Your task to perform on an android device: When is my next meeting? Image 0: 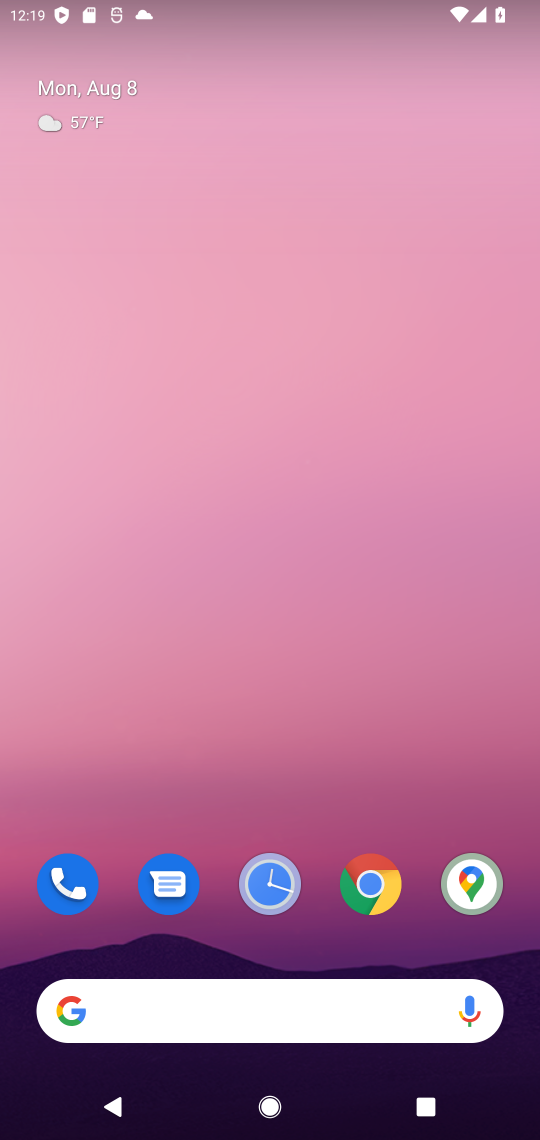
Step 0: drag from (231, 903) to (387, 424)
Your task to perform on an android device: When is my next meeting? Image 1: 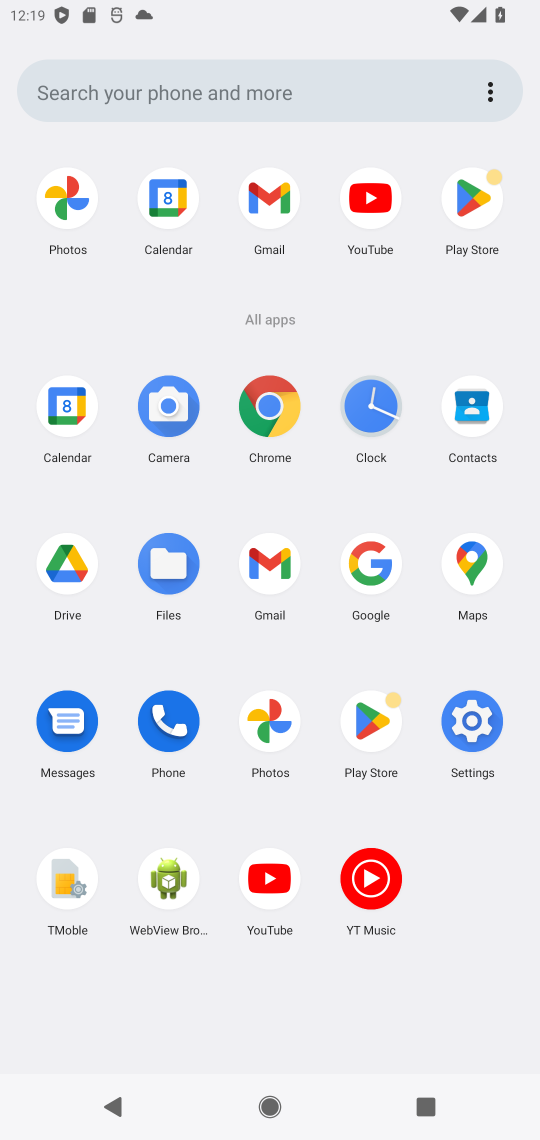
Step 1: click (93, 441)
Your task to perform on an android device: When is my next meeting? Image 2: 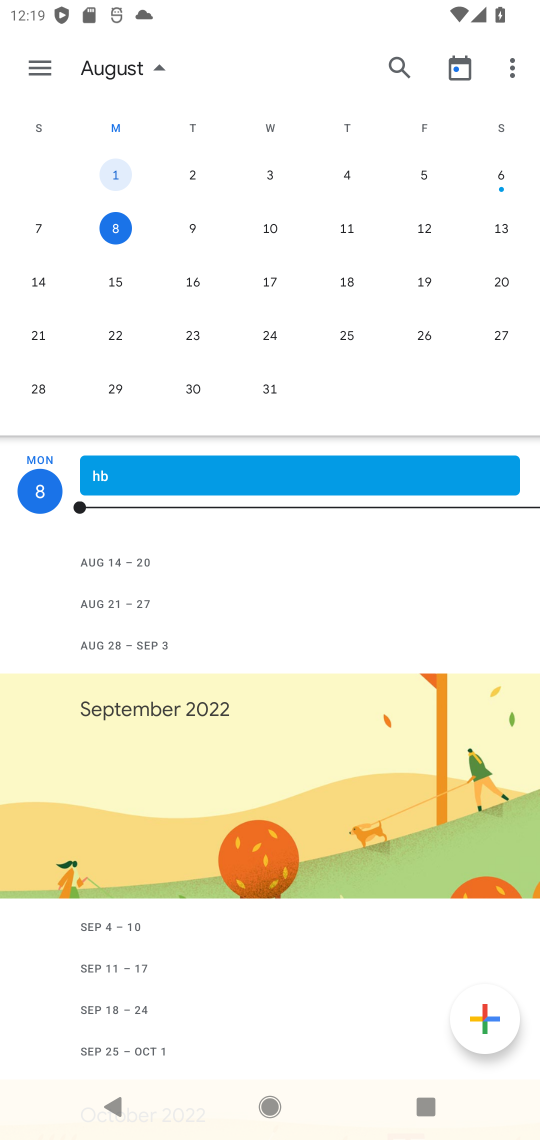
Step 2: click (38, 60)
Your task to perform on an android device: When is my next meeting? Image 3: 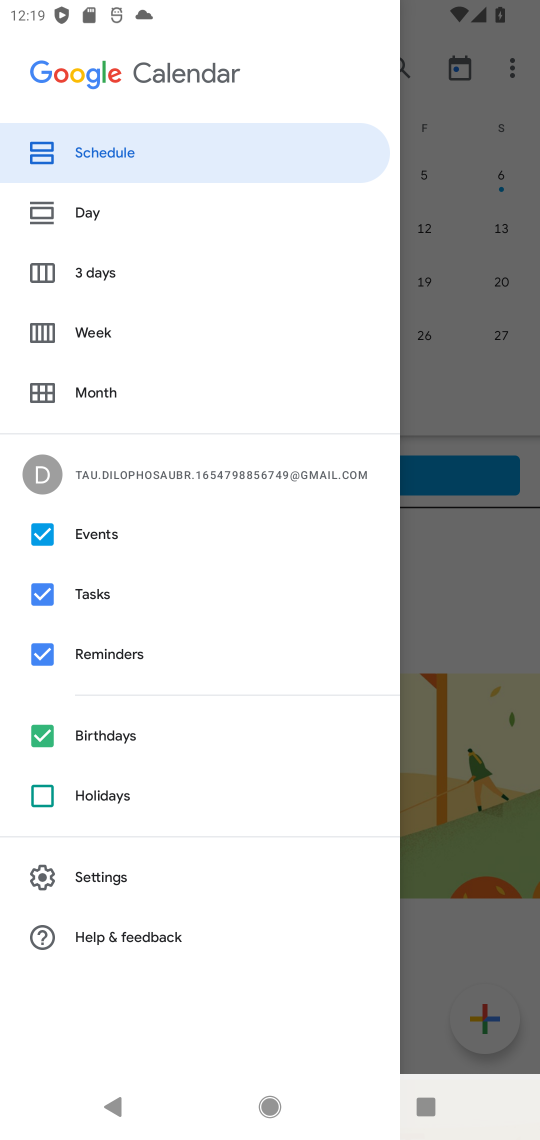
Step 3: click (105, 165)
Your task to perform on an android device: When is my next meeting? Image 4: 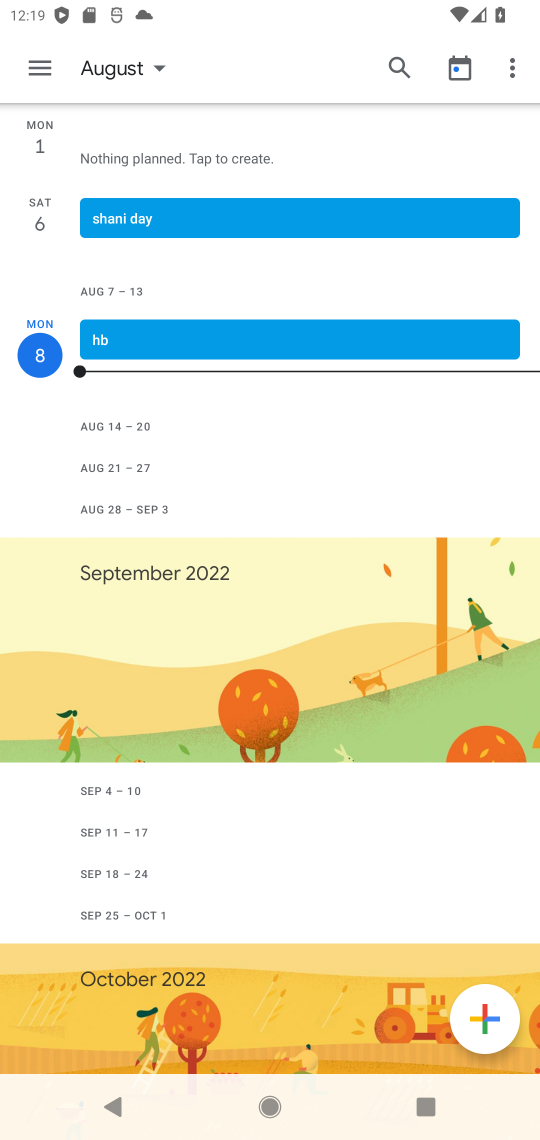
Step 4: task complete